Your task to perform on an android device: Find coffee shops on Maps Image 0: 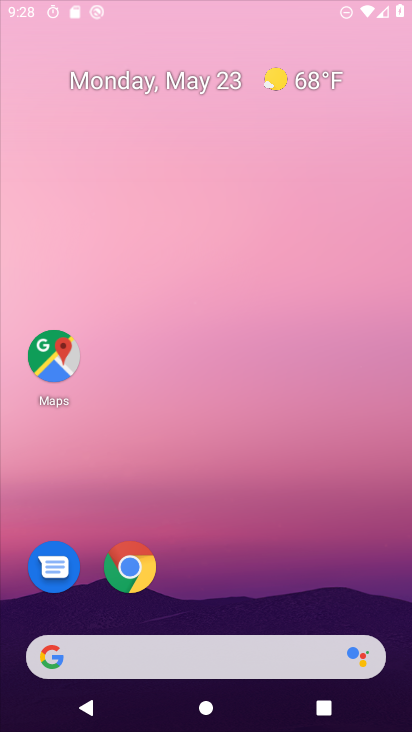
Step 0: click (276, 95)
Your task to perform on an android device: Find coffee shops on Maps Image 1: 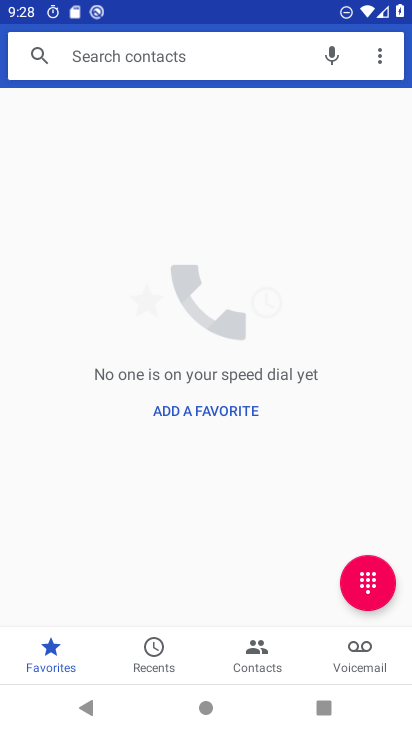
Step 1: press home button
Your task to perform on an android device: Find coffee shops on Maps Image 2: 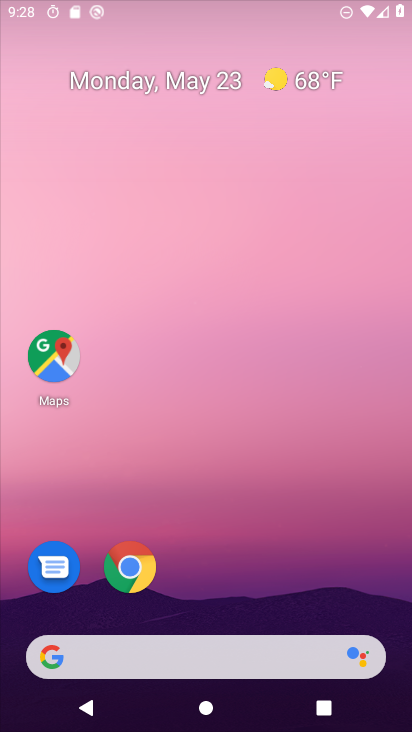
Step 2: drag from (231, 476) to (231, 1)
Your task to perform on an android device: Find coffee shops on Maps Image 3: 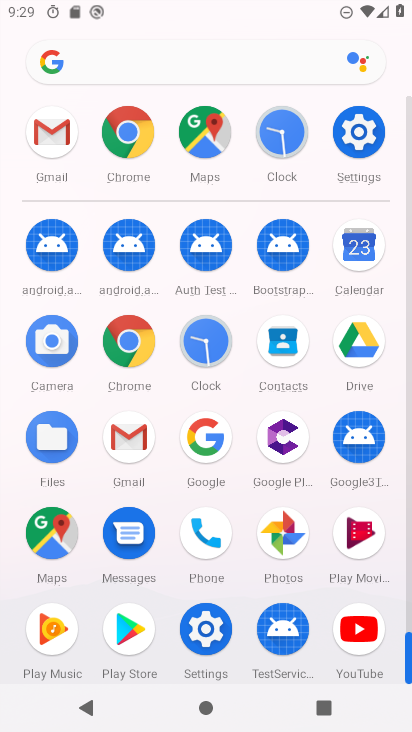
Step 3: click (46, 524)
Your task to perform on an android device: Find coffee shops on Maps Image 4: 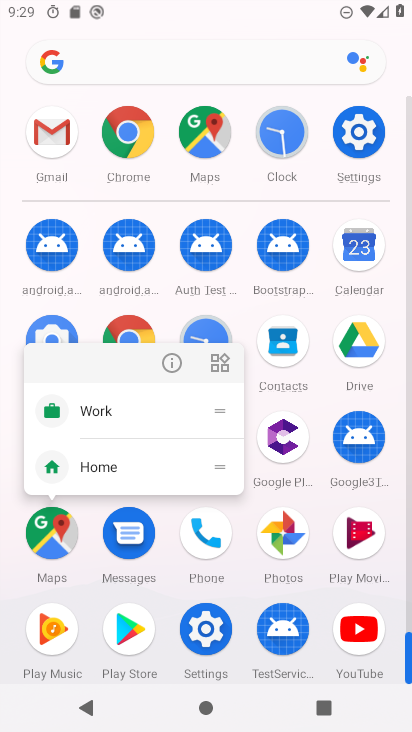
Step 4: click (167, 356)
Your task to perform on an android device: Find coffee shops on Maps Image 5: 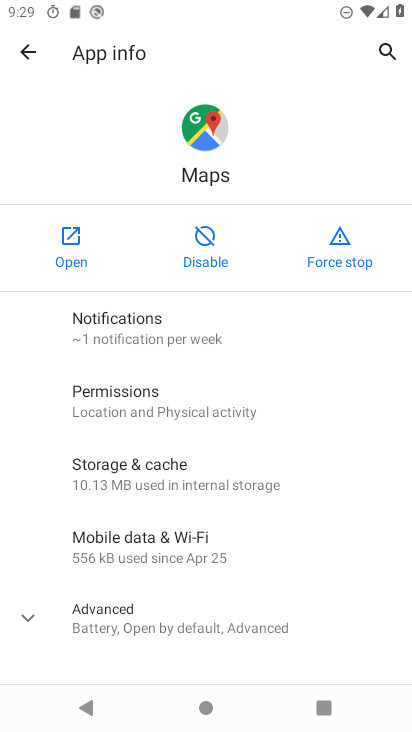
Step 5: click (82, 255)
Your task to perform on an android device: Find coffee shops on Maps Image 6: 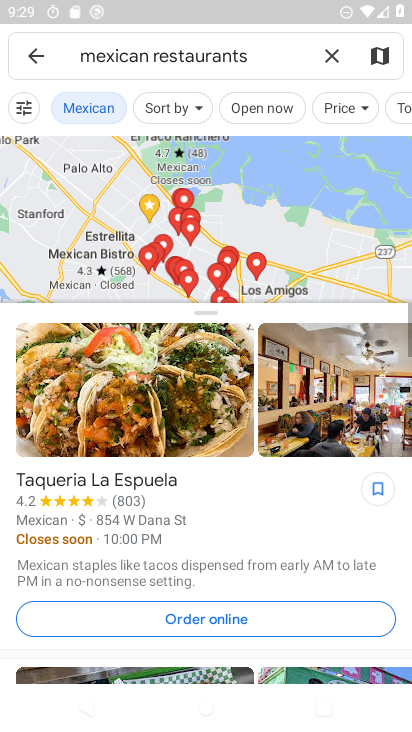
Step 6: click (329, 52)
Your task to perform on an android device: Find coffee shops on Maps Image 7: 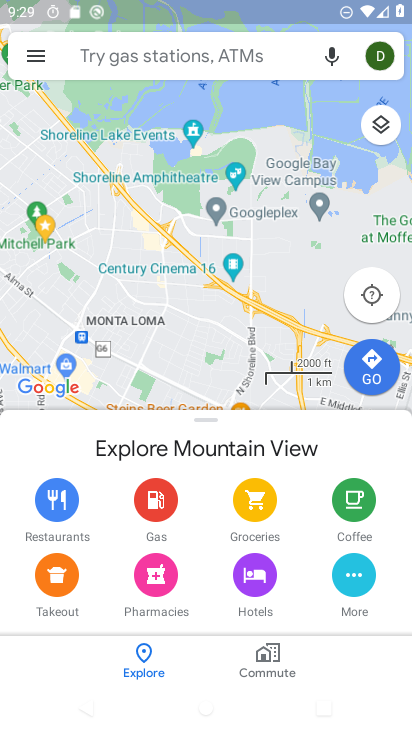
Step 7: click (169, 56)
Your task to perform on an android device: Find coffee shops on Maps Image 8: 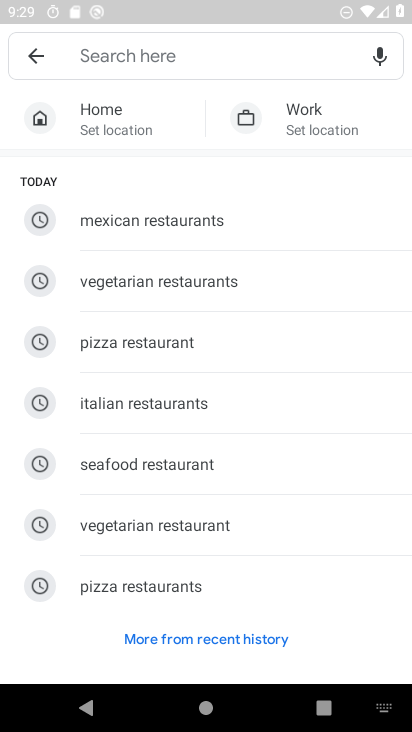
Step 8: type "coffee"
Your task to perform on an android device: Find coffee shops on Maps Image 9: 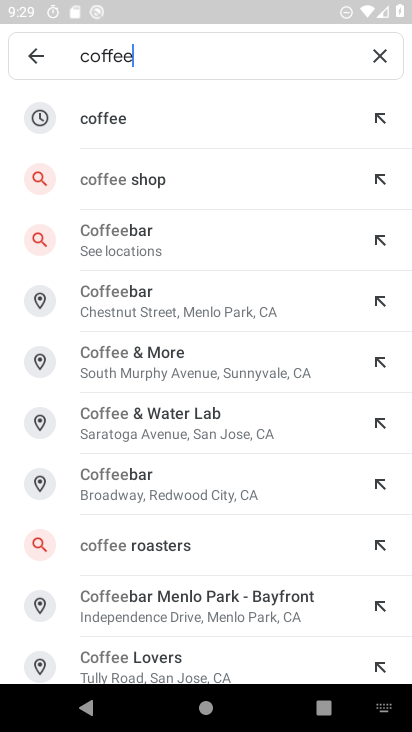
Step 9: click (115, 122)
Your task to perform on an android device: Find coffee shops on Maps Image 10: 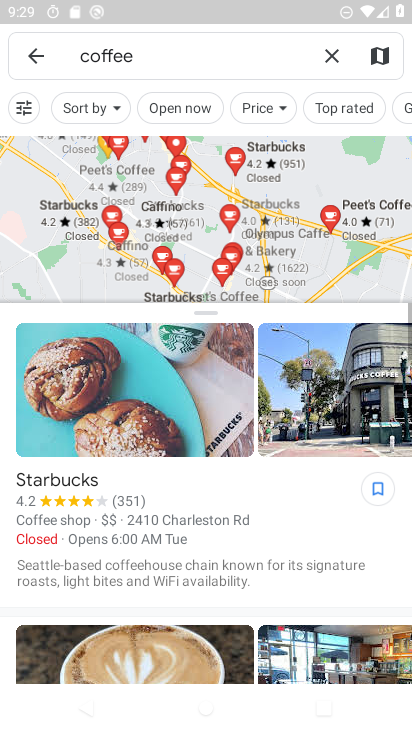
Step 10: task complete